Your task to perform on an android device: change notifications settings Image 0: 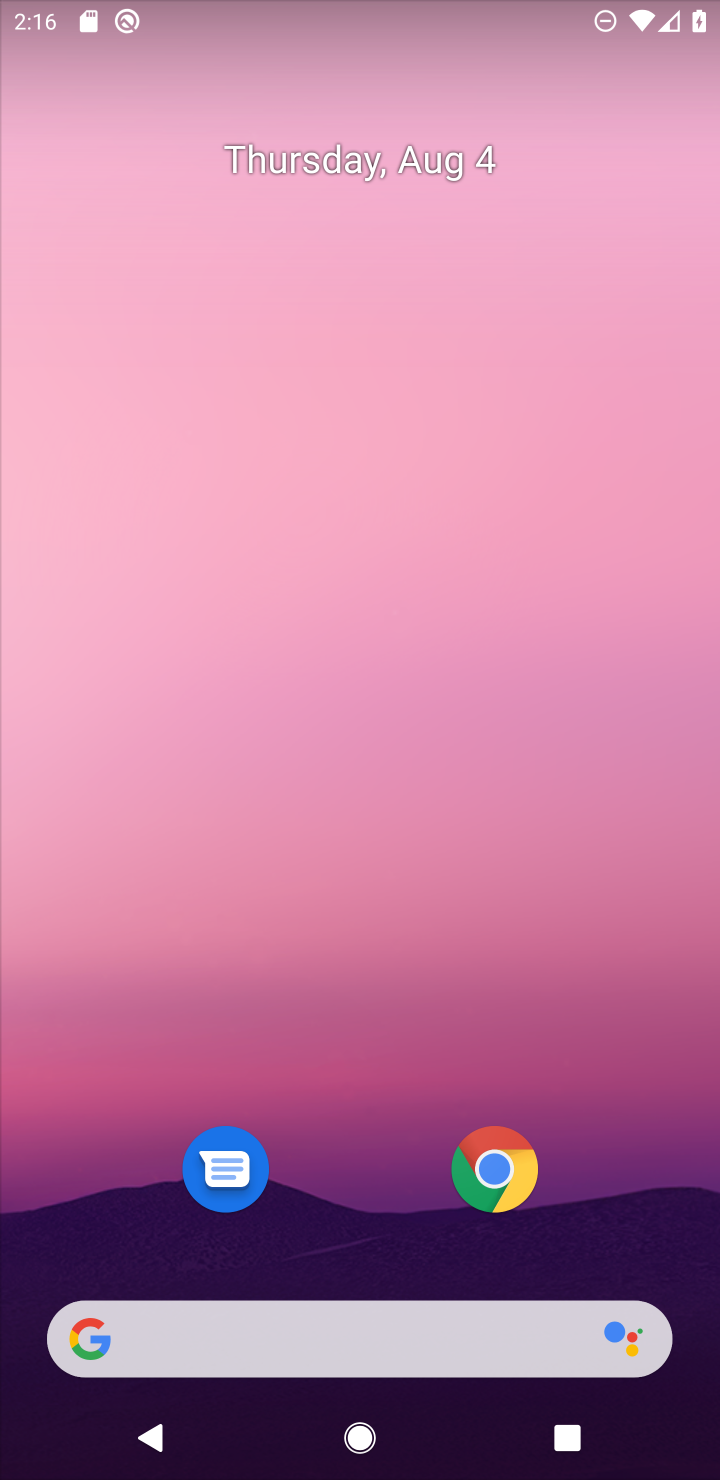
Step 0: drag from (354, 1166) to (365, 25)
Your task to perform on an android device: change notifications settings Image 1: 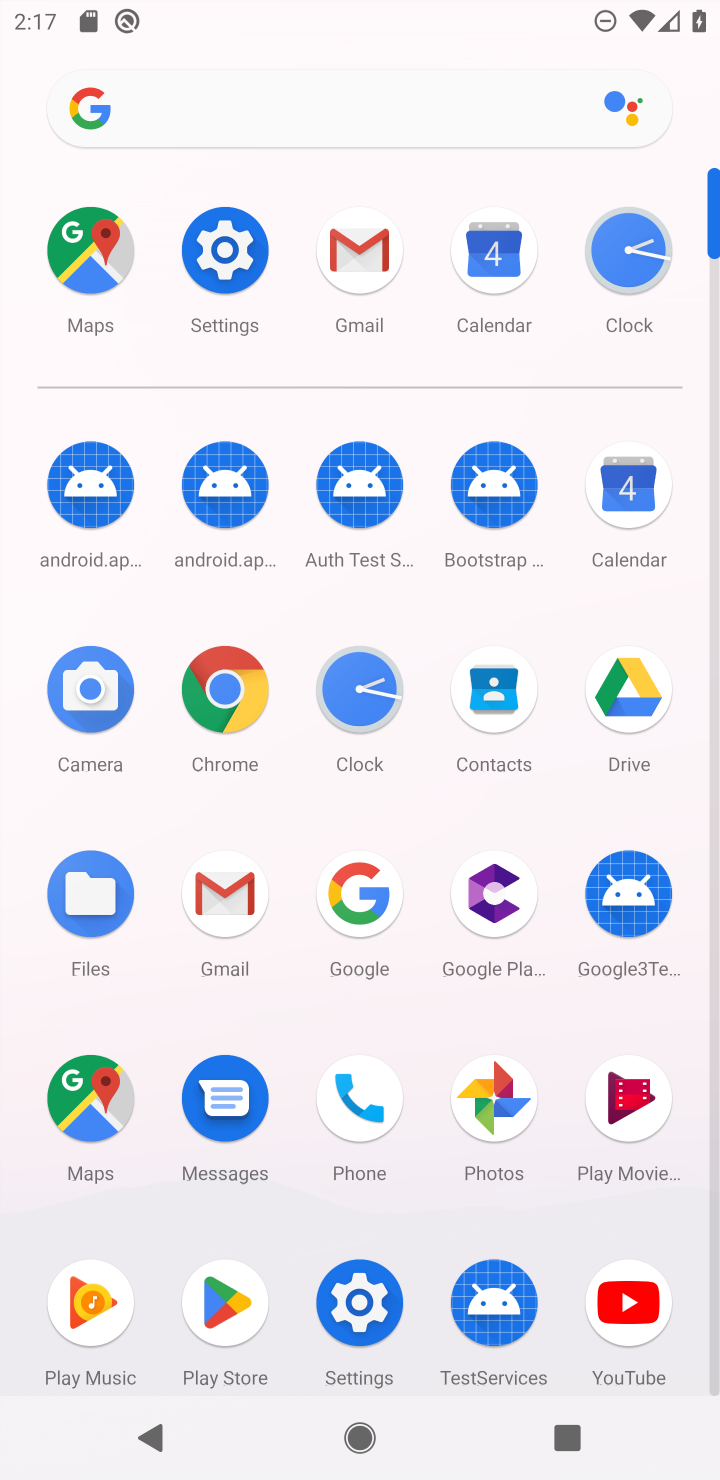
Step 1: click (227, 272)
Your task to perform on an android device: change notifications settings Image 2: 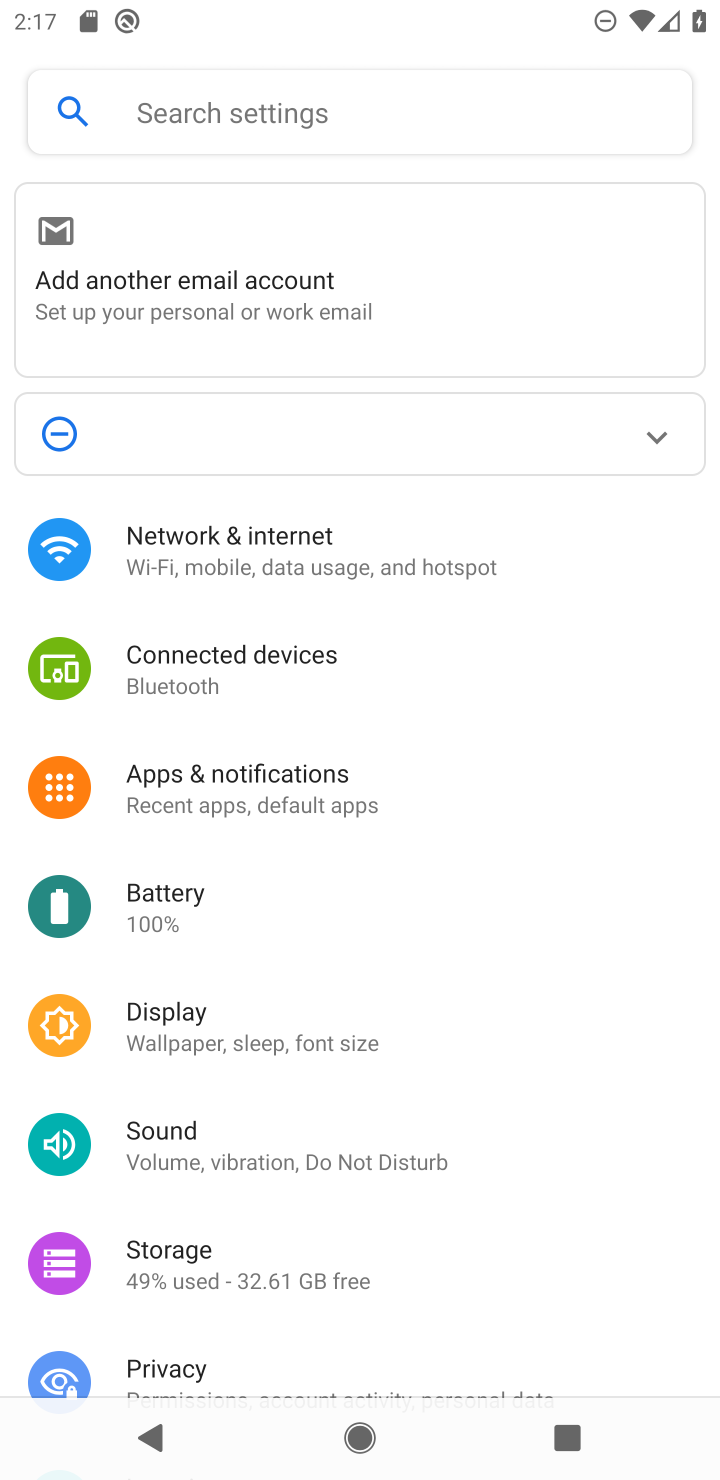
Step 2: click (224, 786)
Your task to perform on an android device: change notifications settings Image 3: 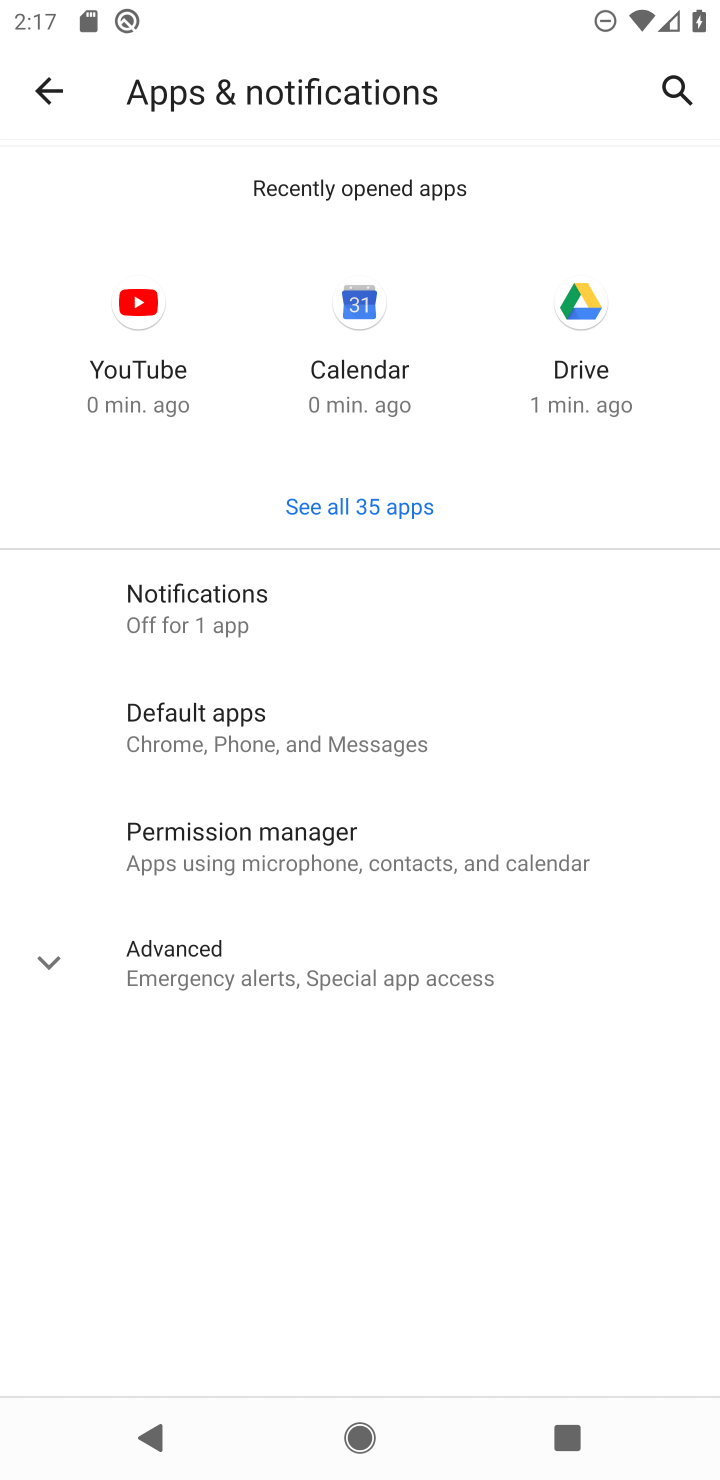
Step 3: task complete